Your task to perform on an android device: Search for Mexican restaurants on Maps Image 0: 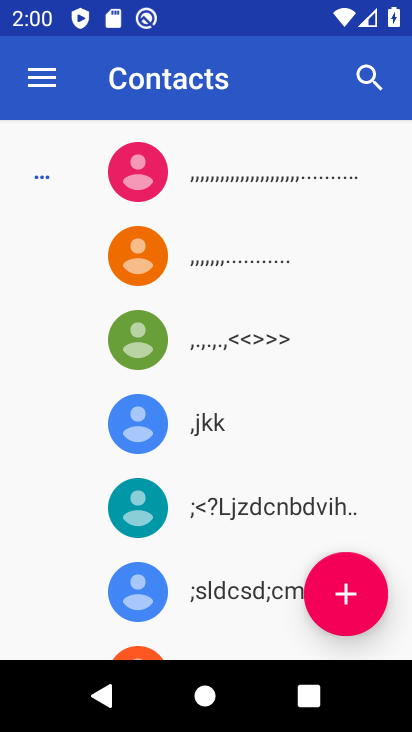
Step 0: press home button
Your task to perform on an android device: Search for Mexican restaurants on Maps Image 1: 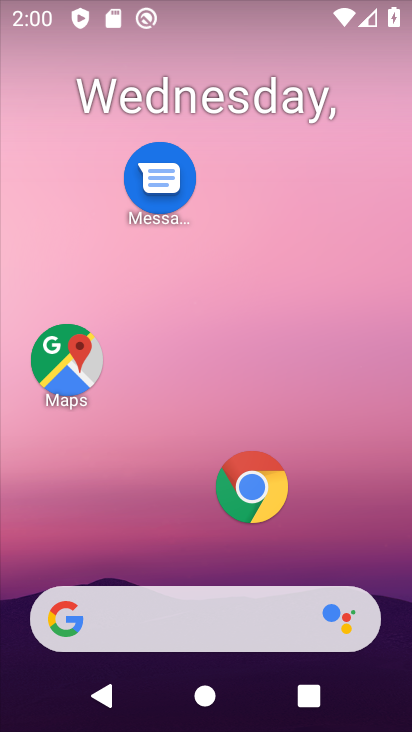
Step 1: click (59, 378)
Your task to perform on an android device: Search for Mexican restaurants on Maps Image 2: 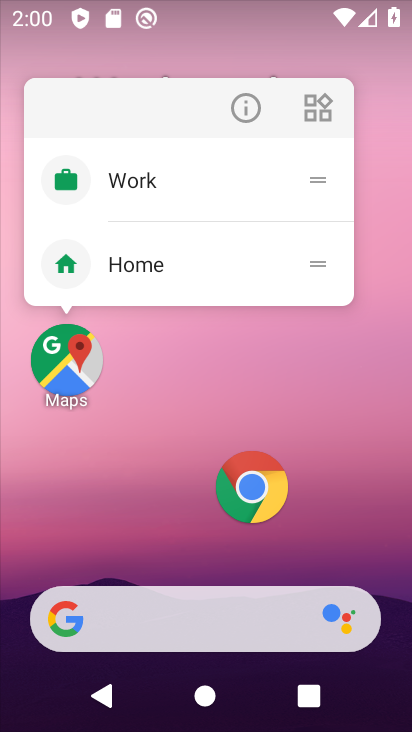
Step 2: click (59, 378)
Your task to perform on an android device: Search for Mexican restaurants on Maps Image 3: 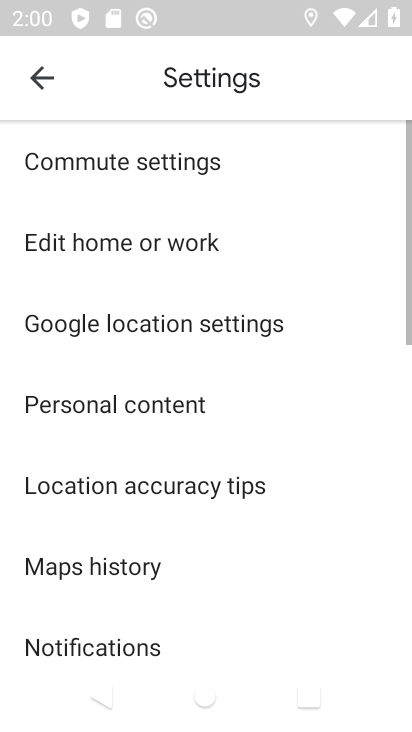
Step 3: click (42, 83)
Your task to perform on an android device: Search for Mexican restaurants on Maps Image 4: 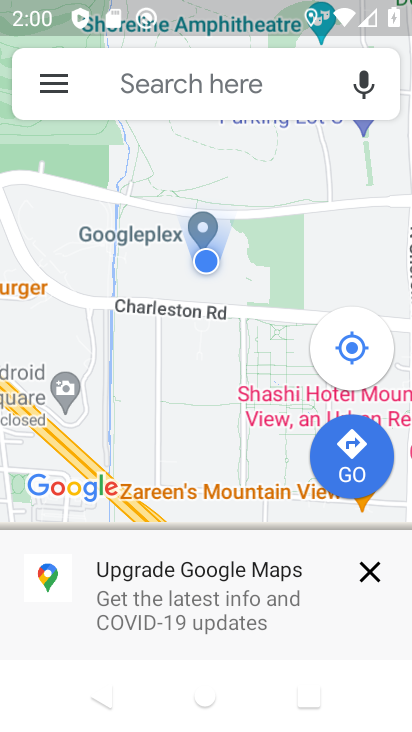
Step 4: click (170, 93)
Your task to perform on an android device: Search for Mexican restaurants on Maps Image 5: 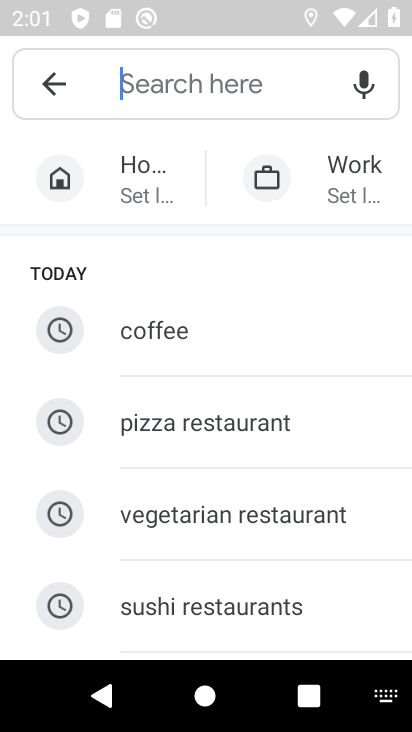
Step 5: type "Mexican restaurants"
Your task to perform on an android device: Search for Mexican restaurants on Maps Image 6: 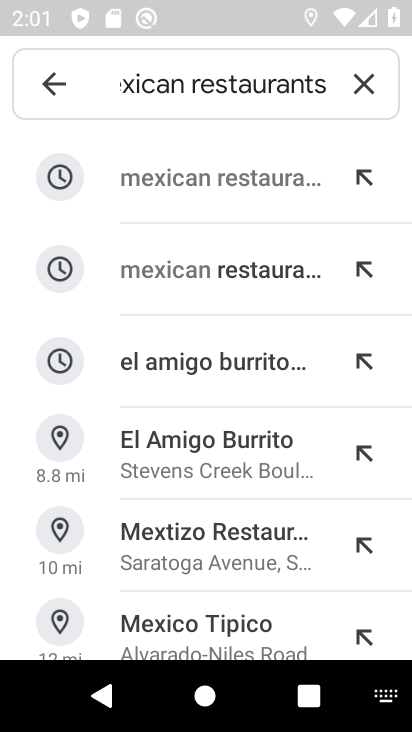
Step 6: click (251, 174)
Your task to perform on an android device: Search for Mexican restaurants on Maps Image 7: 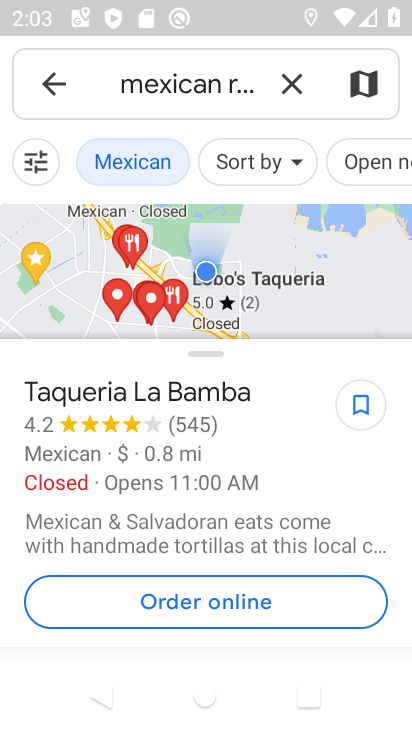
Step 7: task complete